Your task to perform on an android device: open sync settings in chrome Image 0: 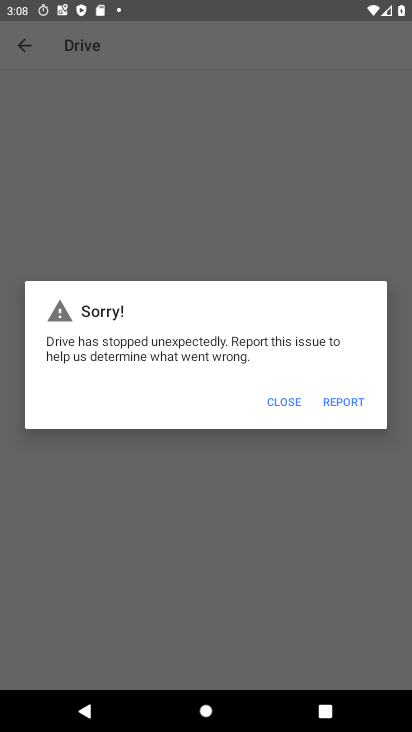
Step 0: drag from (204, 574) to (290, 215)
Your task to perform on an android device: open sync settings in chrome Image 1: 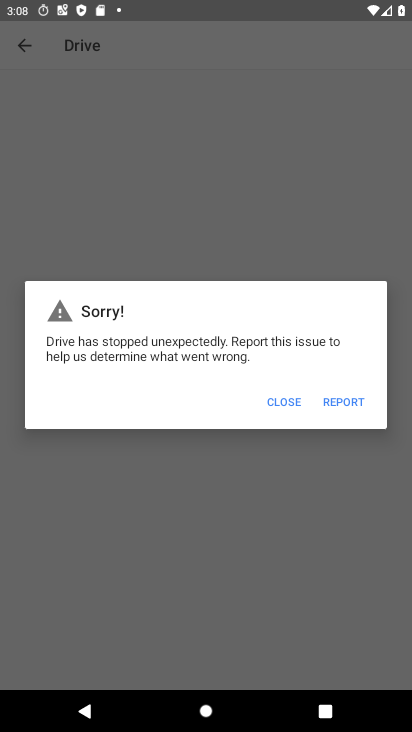
Step 1: press home button
Your task to perform on an android device: open sync settings in chrome Image 2: 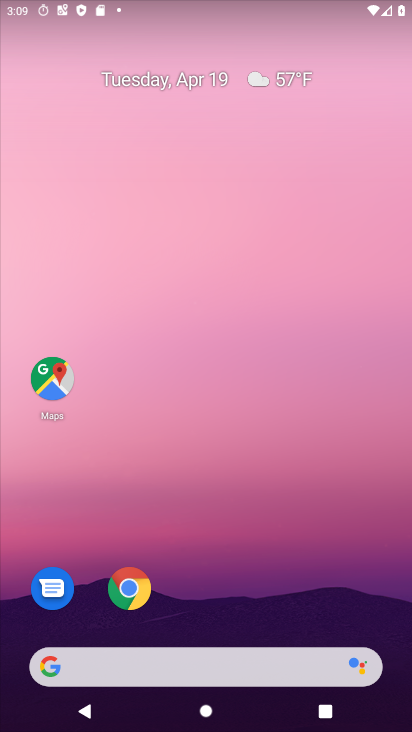
Step 2: drag from (216, 364) to (247, 46)
Your task to perform on an android device: open sync settings in chrome Image 3: 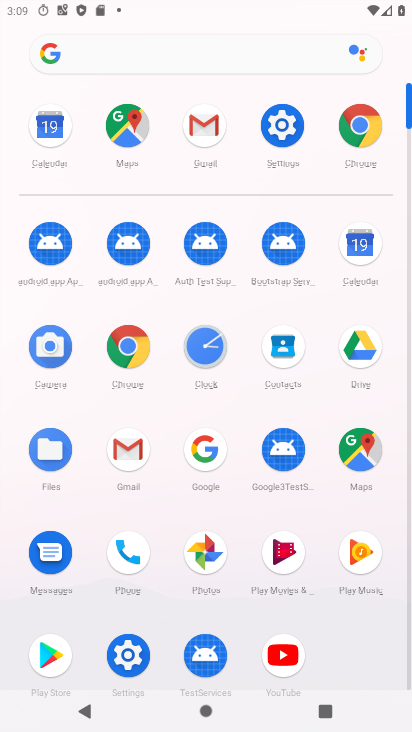
Step 3: click (131, 335)
Your task to perform on an android device: open sync settings in chrome Image 4: 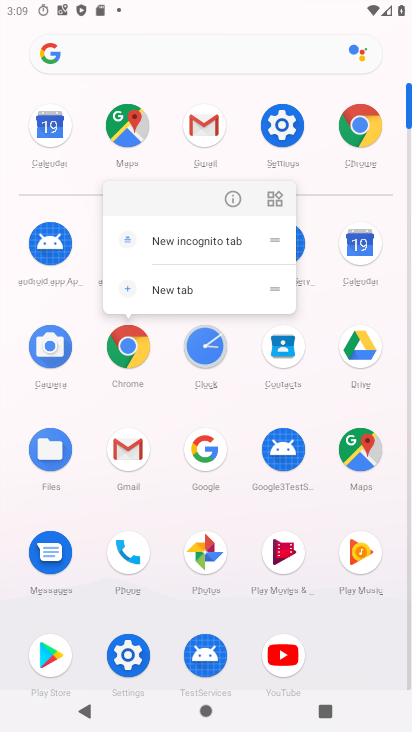
Step 4: click (227, 191)
Your task to perform on an android device: open sync settings in chrome Image 5: 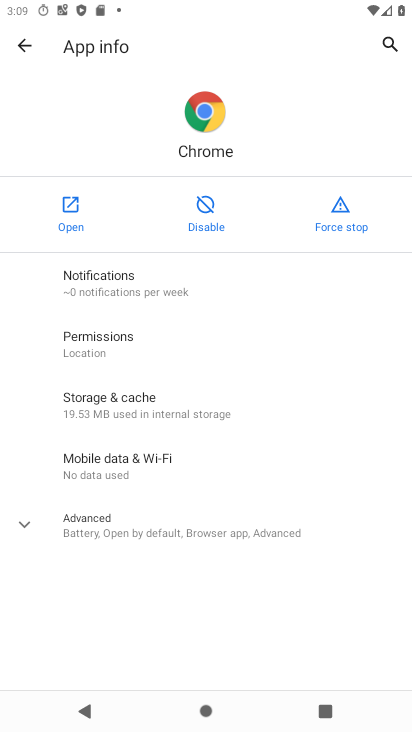
Step 5: click (58, 219)
Your task to perform on an android device: open sync settings in chrome Image 6: 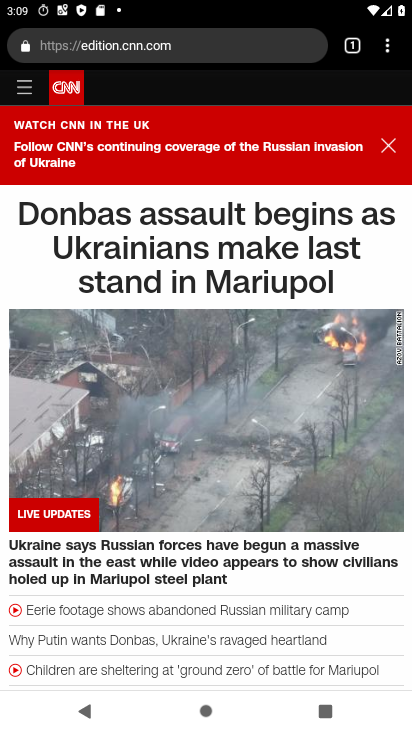
Step 6: drag from (388, 50) to (248, 512)
Your task to perform on an android device: open sync settings in chrome Image 7: 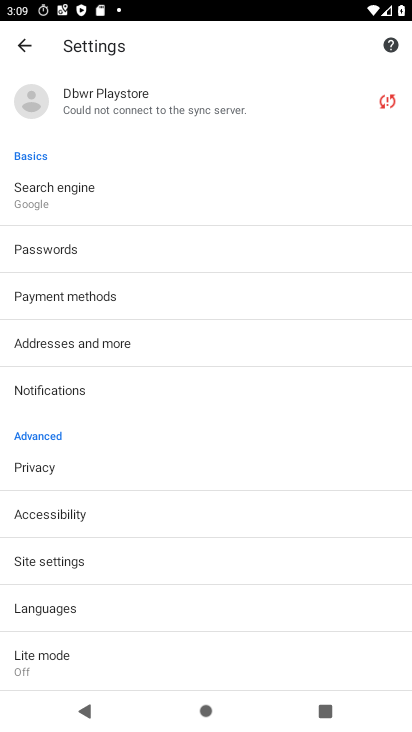
Step 7: drag from (118, 592) to (220, 220)
Your task to perform on an android device: open sync settings in chrome Image 8: 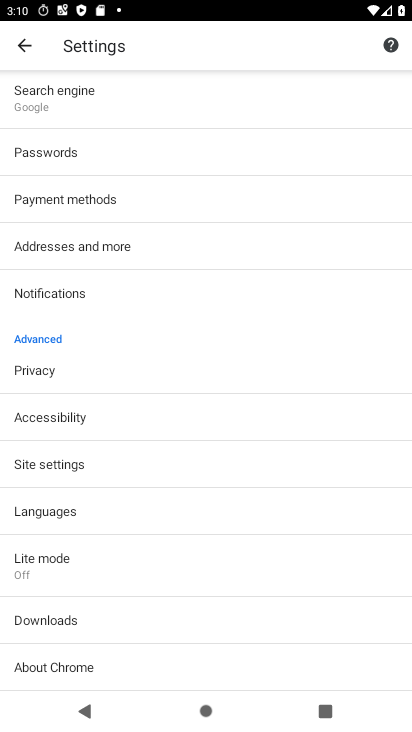
Step 8: click (88, 458)
Your task to perform on an android device: open sync settings in chrome Image 9: 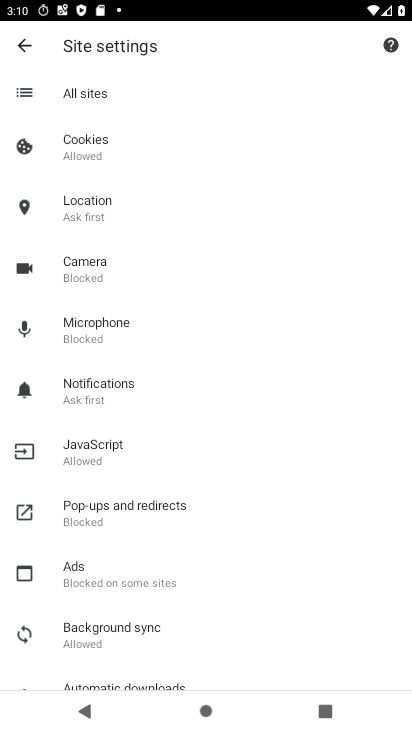
Step 9: click (142, 628)
Your task to perform on an android device: open sync settings in chrome Image 10: 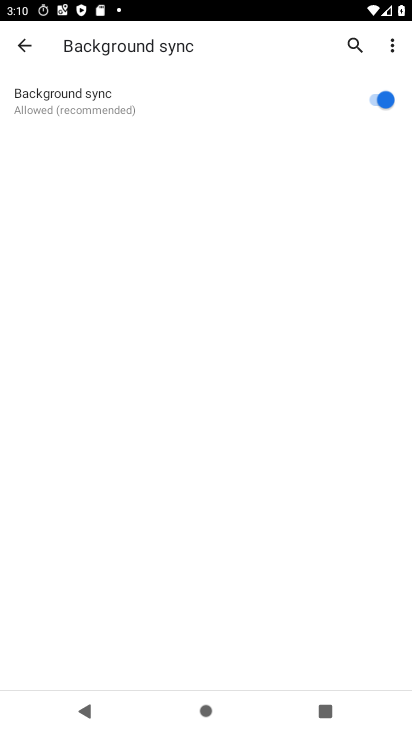
Step 10: task complete